Your task to perform on an android device: turn on improve location accuracy Image 0: 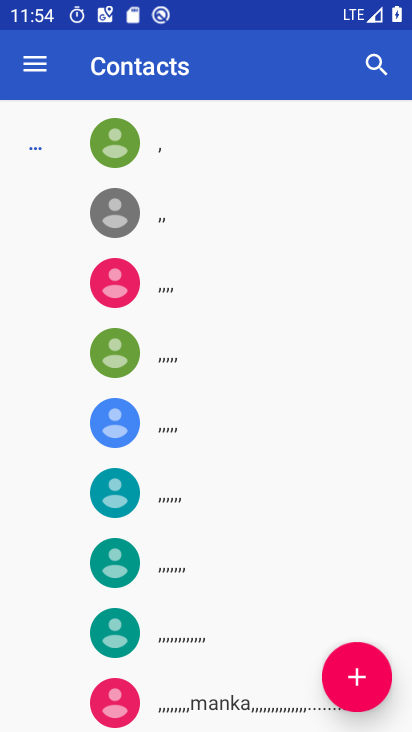
Step 0: press home button
Your task to perform on an android device: turn on improve location accuracy Image 1: 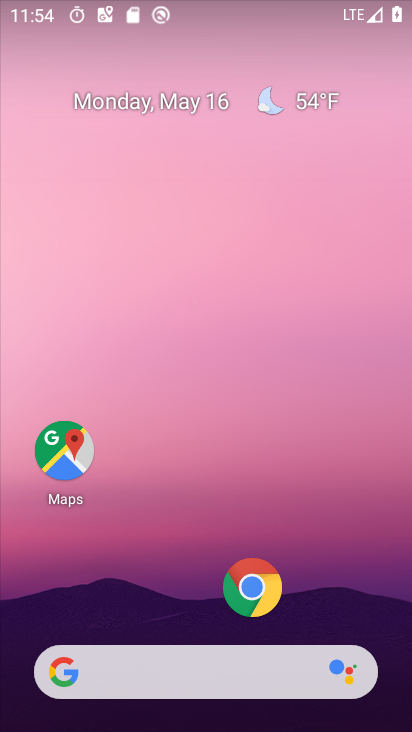
Step 1: drag from (196, 587) to (256, 1)
Your task to perform on an android device: turn on improve location accuracy Image 2: 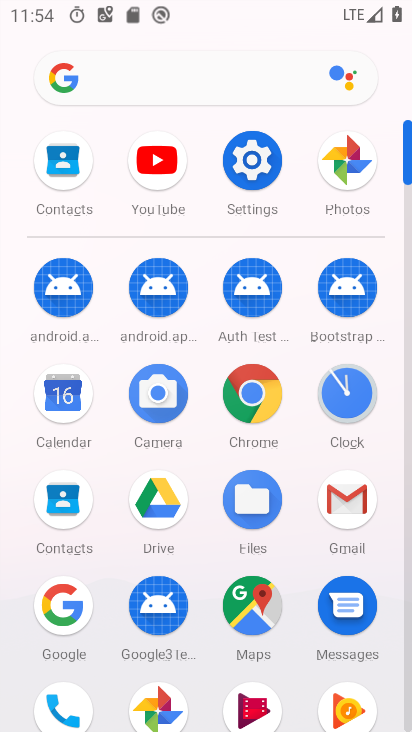
Step 2: click (271, 167)
Your task to perform on an android device: turn on improve location accuracy Image 3: 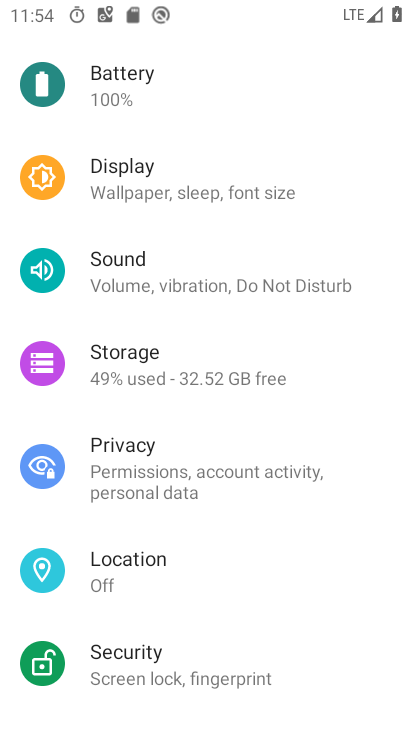
Step 3: click (153, 569)
Your task to perform on an android device: turn on improve location accuracy Image 4: 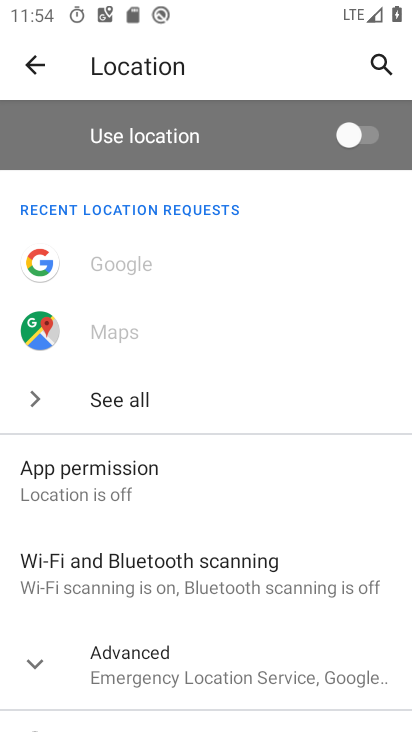
Step 4: click (148, 656)
Your task to perform on an android device: turn on improve location accuracy Image 5: 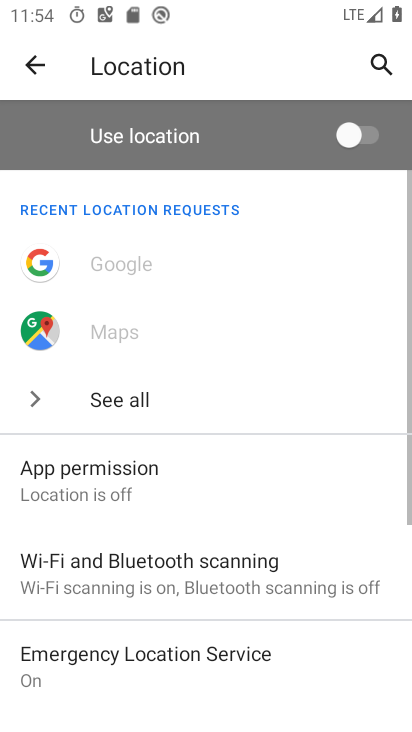
Step 5: drag from (151, 647) to (218, 287)
Your task to perform on an android device: turn on improve location accuracy Image 6: 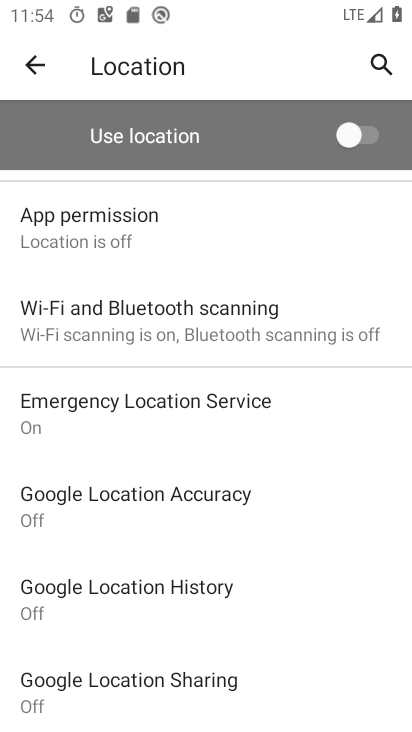
Step 6: click (156, 495)
Your task to perform on an android device: turn on improve location accuracy Image 7: 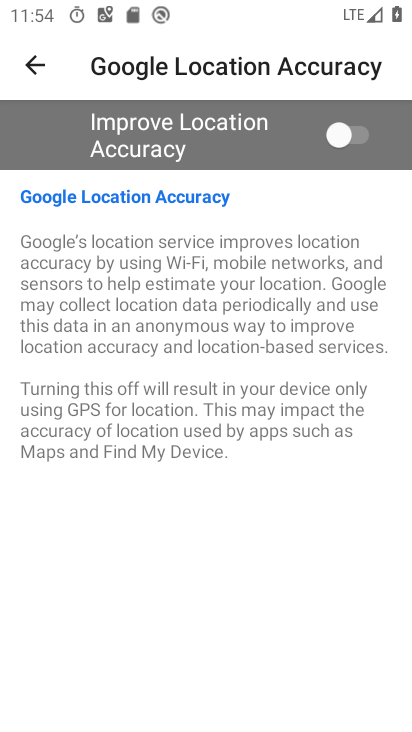
Step 7: click (352, 144)
Your task to perform on an android device: turn on improve location accuracy Image 8: 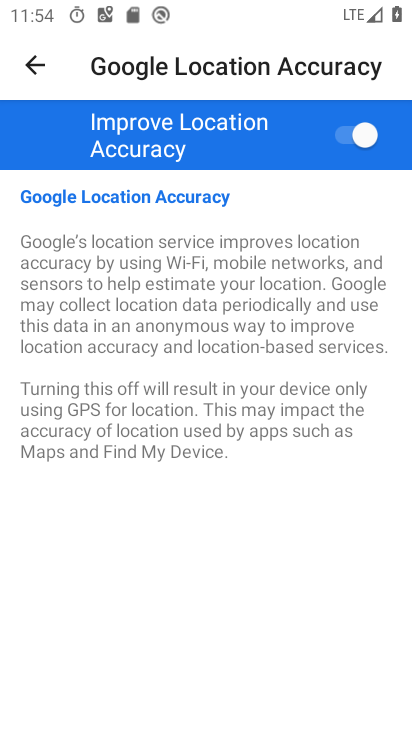
Step 8: task complete